Your task to perform on an android device: turn off data saver in the chrome app Image 0: 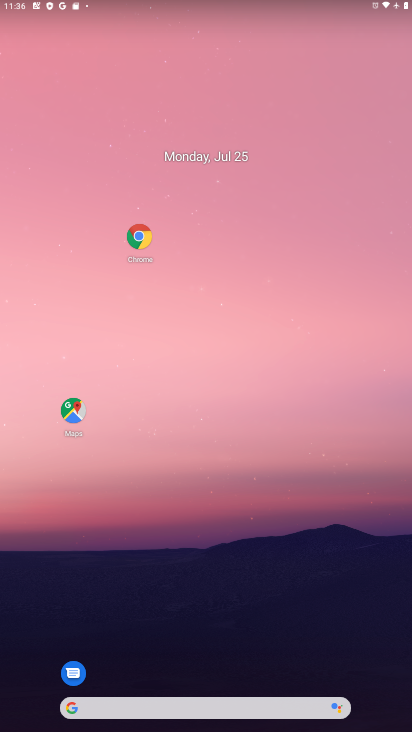
Step 0: click (136, 249)
Your task to perform on an android device: turn off data saver in the chrome app Image 1: 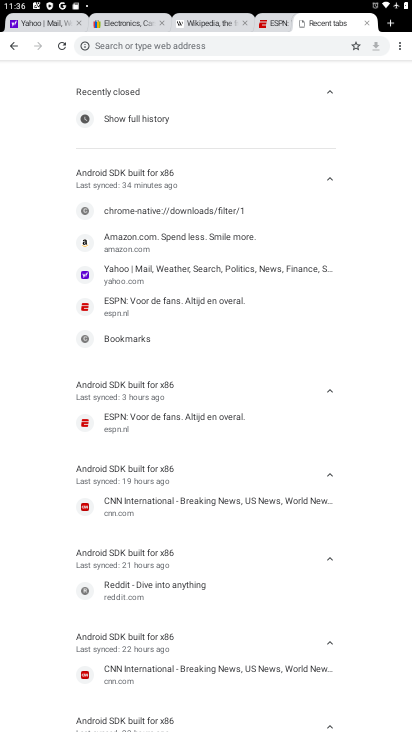
Step 1: click (397, 57)
Your task to perform on an android device: turn off data saver in the chrome app Image 2: 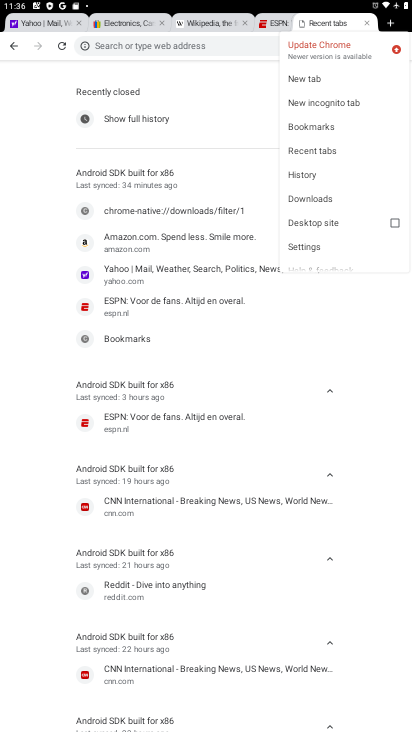
Step 2: click (325, 249)
Your task to perform on an android device: turn off data saver in the chrome app Image 3: 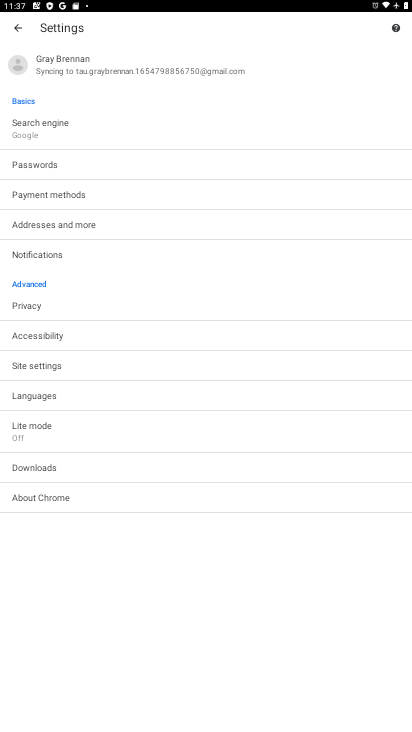
Step 3: click (101, 427)
Your task to perform on an android device: turn off data saver in the chrome app Image 4: 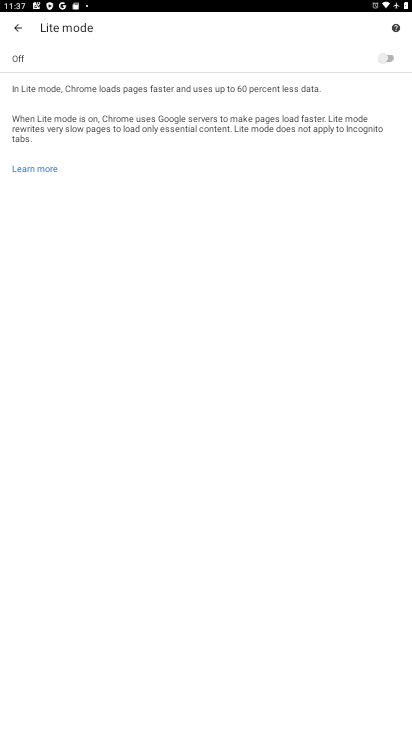
Step 4: click (385, 69)
Your task to perform on an android device: turn off data saver in the chrome app Image 5: 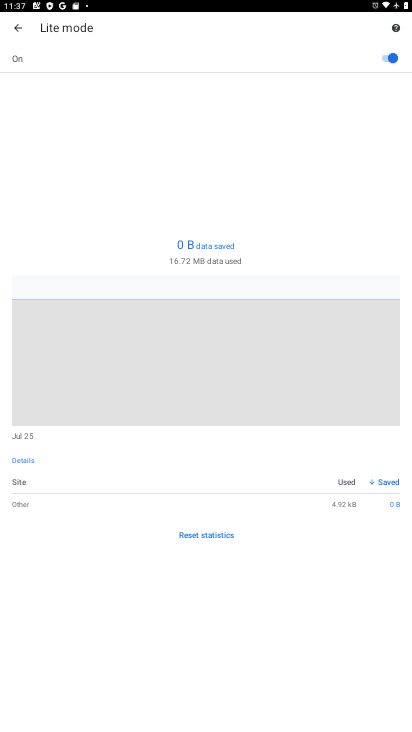
Step 5: task complete